Your task to perform on an android device: change your default location settings in chrome Image 0: 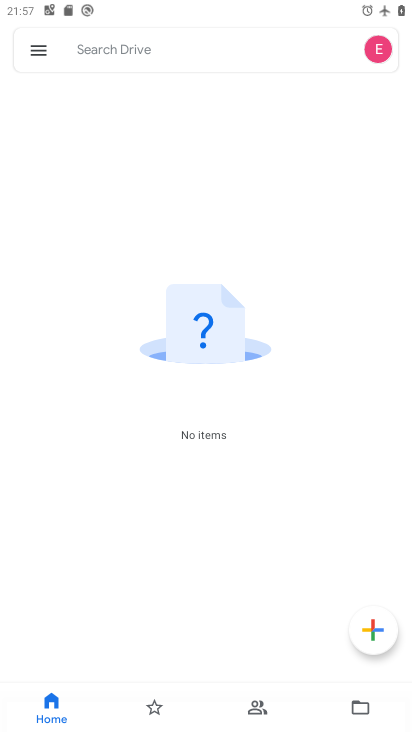
Step 0: press home button
Your task to perform on an android device: change your default location settings in chrome Image 1: 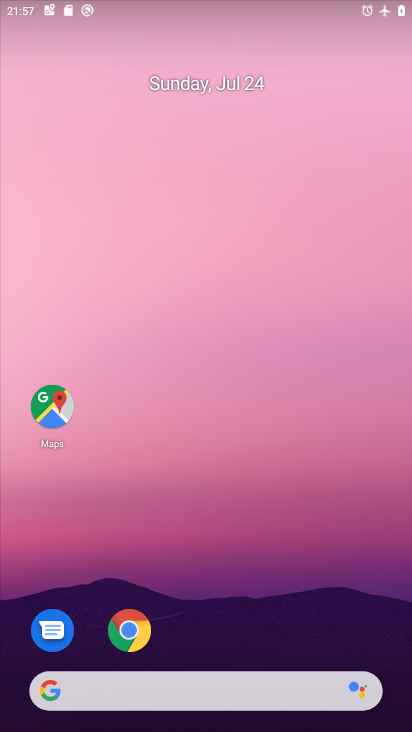
Step 1: drag from (395, 659) to (335, 208)
Your task to perform on an android device: change your default location settings in chrome Image 2: 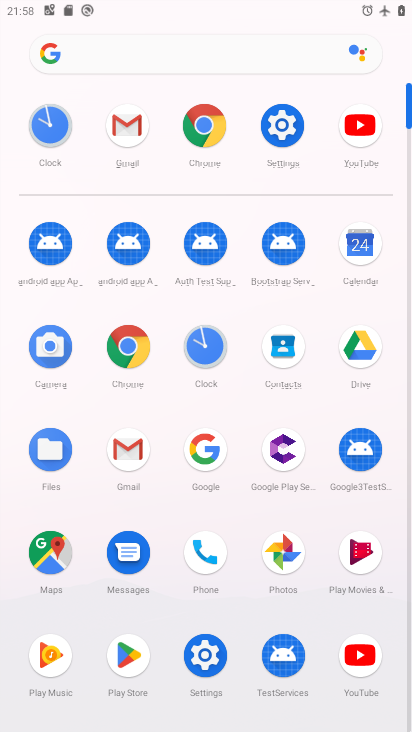
Step 2: click (209, 115)
Your task to perform on an android device: change your default location settings in chrome Image 3: 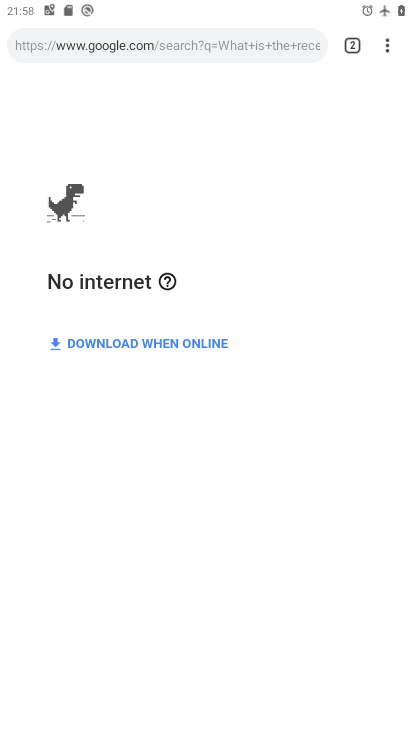
Step 3: click (398, 45)
Your task to perform on an android device: change your default location settings in chrome Image 4: 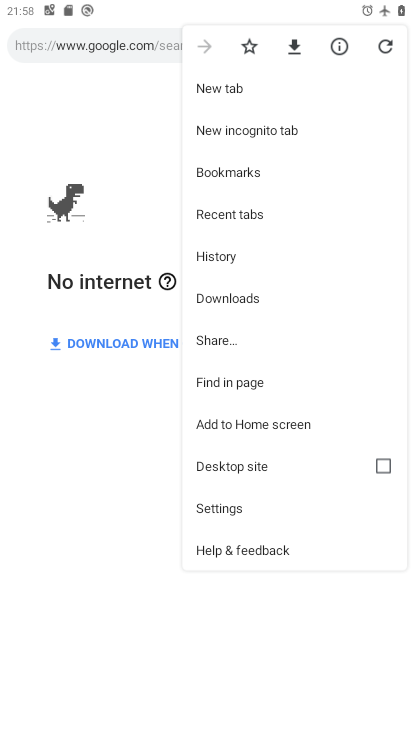
Step 4: click (228, 509)
Your task to perform on an android device: change your default location settings in chrome Image 5: 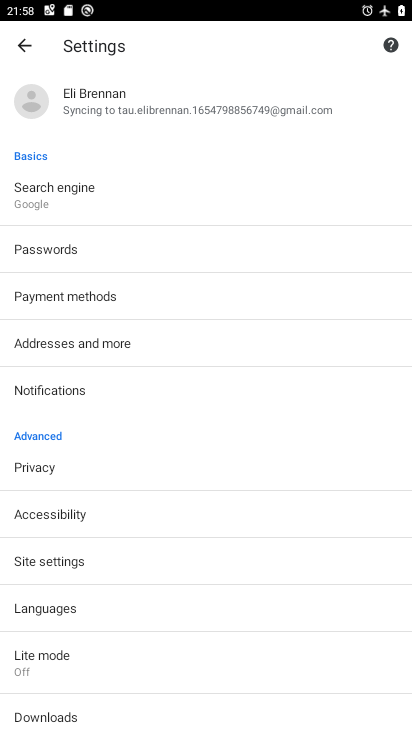
Step 5: click (68, 551)
Your task to perform on an android device: change your default location settings in chrome Image 6: 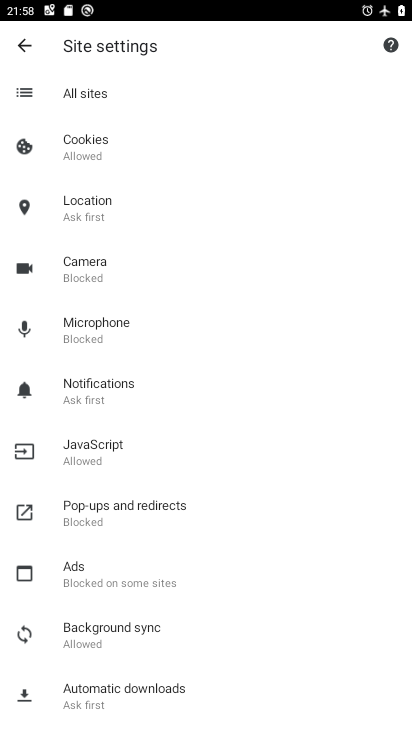
Step 6: click (74, 224)
Your task to perform on an android device: change your default location settings in chrome Image 7: 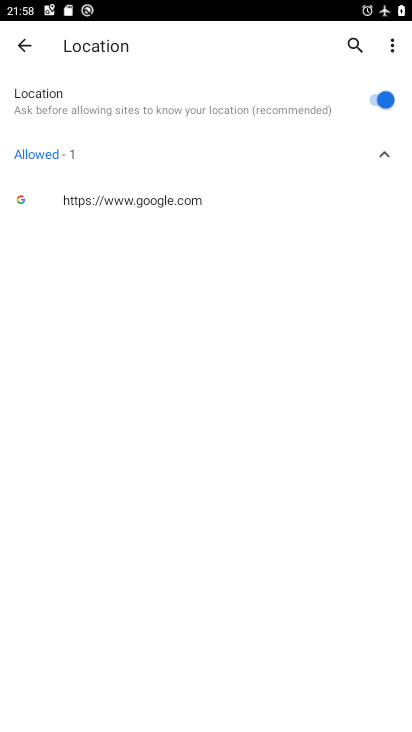
Step 7: click (388, 97)
Your task to perform on an android device: change your default location settings in chrome Image 8: 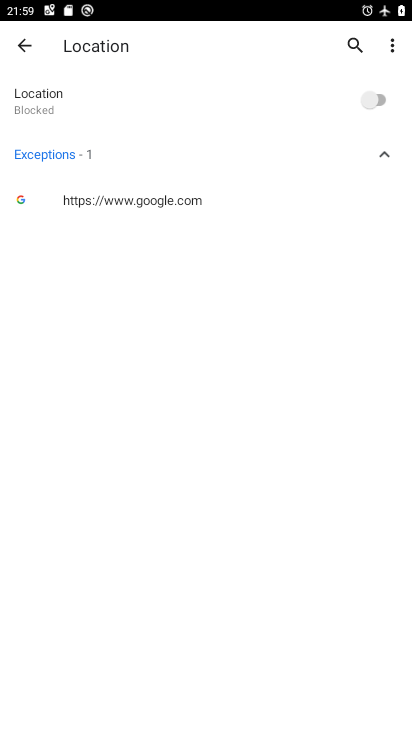
Step 8: task complete